Your task to perform on an android device: Open the Play Movies app and select the watchlist tab. Image 0: 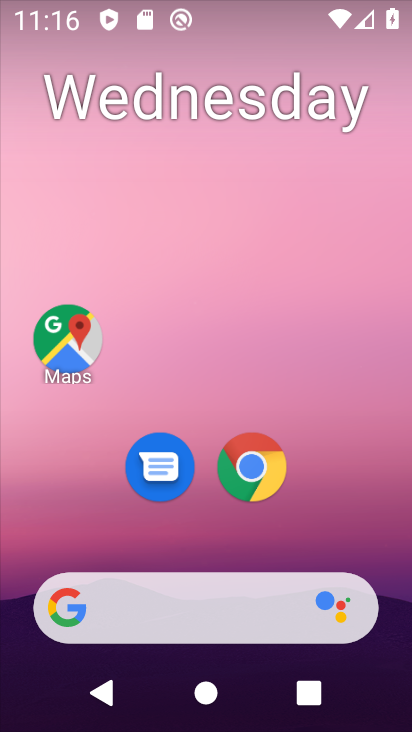
Step 0: drag from (370, 569) to (306, 1)
Your task to perform on an android device: Open the Play Movies app and select the watchlist tab. Image 1: 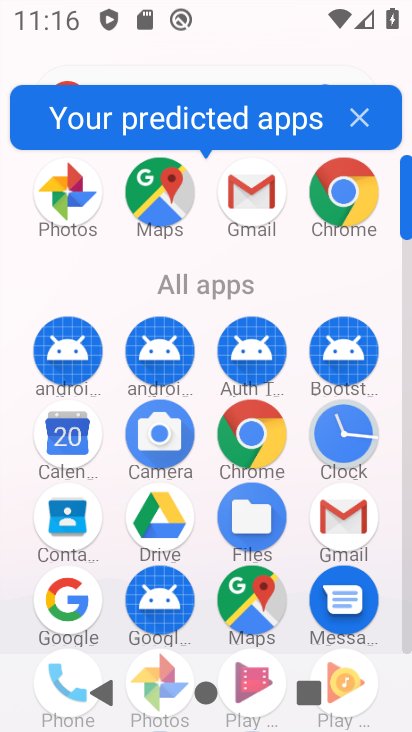
Step 1: drag from (280, 290) to (268, 523)
Your task to perform on an android device: Open the Play Movies app and select the watchlist tab. Image 2: 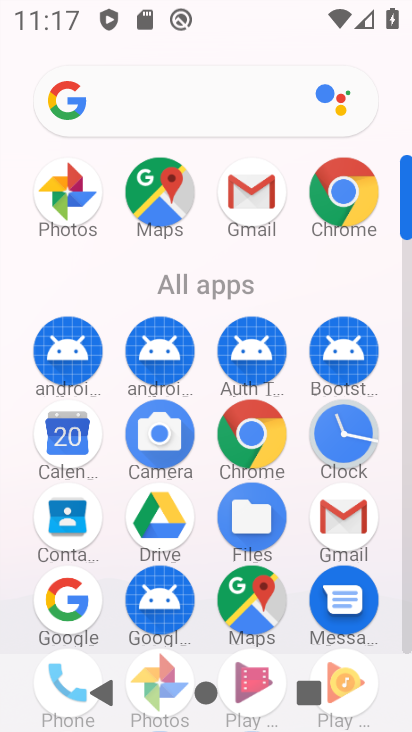
Step 2: drag from (295, 610) to (292, 386)
Your task to perform on an android device: Open the Play Movies app and select the watchlist tab. Image 3: 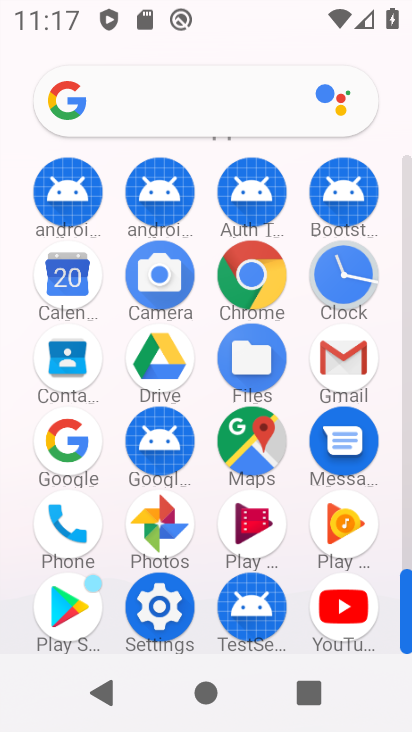
Step 3: click (252, 547)
Your task to perform on an android device: Open the Play Movies app and select the watchlist tab. Image 4: 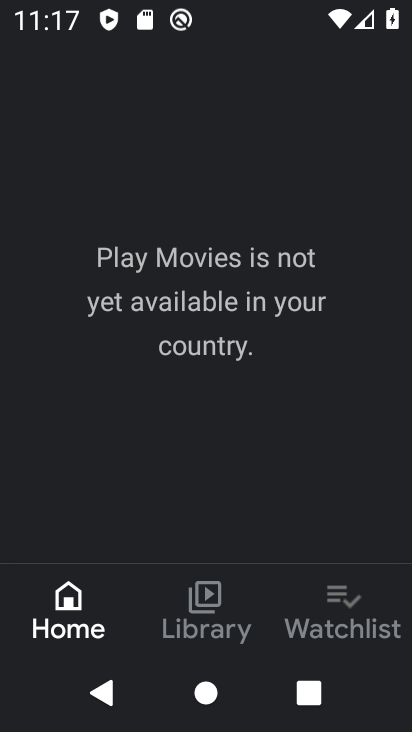
Step 4: click (327, 603)
Your task to perform on an android device: Open the Play Movies app and select the watchlist tab. Image 5: 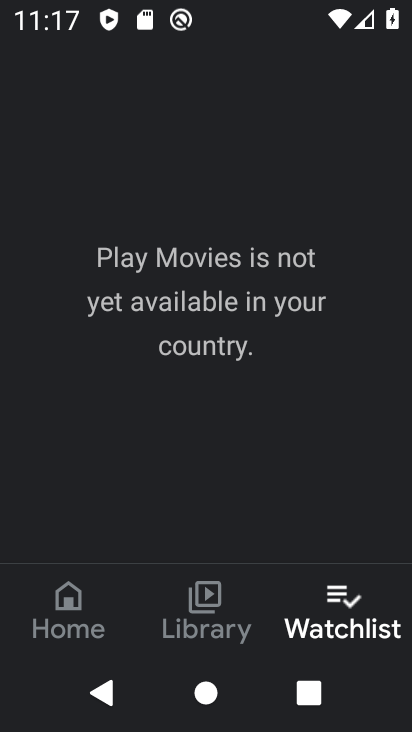
Step 5: task complete